Your task to perform on an android device: uninstall "ColorNote Notepad Notes" Image 0: 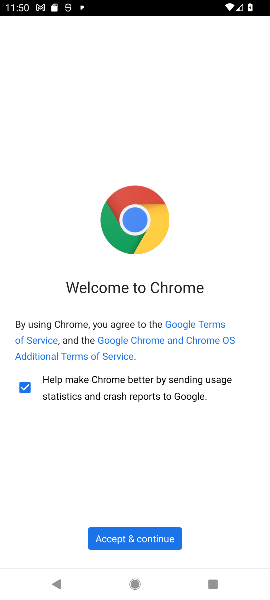
Step 0: press back button
Your task to perform on an android device: uninstall "ColorNote Notepad Notes" Image 1: 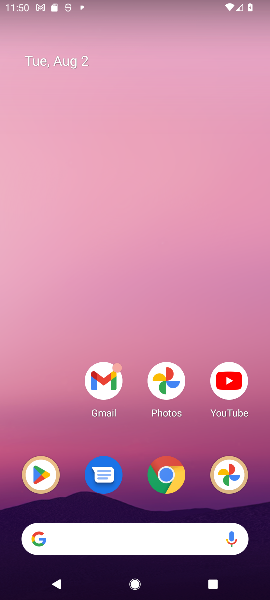
Step 1: click (41, 478)
Your task to perform on an android device: uninstall "ColorNote Notepad Notes" Image 2: 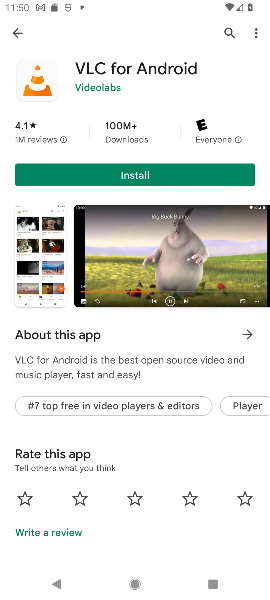
Step 2: click (230, 29)
Your task to perform on an android device: uninstall "ColorNote Notepad Notes" Image 3: 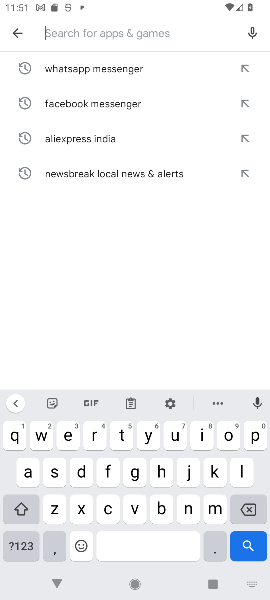
Step 3: type "ColorNote Notepad Notes"
Your task to perform on an android device: uninstall "ColorNote Notepad Notes" Image 4: 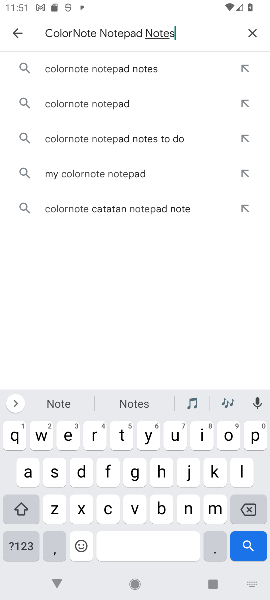
Step 4: type ""
Your task to perform on an android device: uninstall "ColorNote Notepad Notes" Image 5: 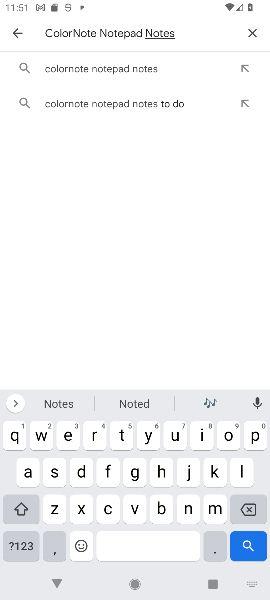
Step 5: click (161, 61)
Your task to perform on an android device: uninstall "ColorNote Notepad Notes" Image 6: 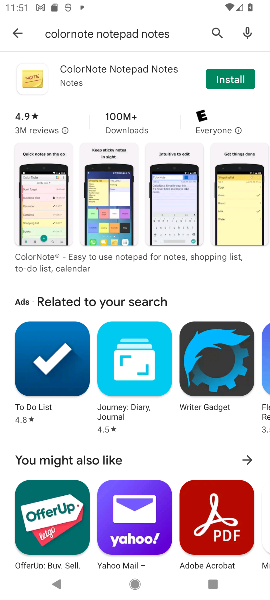
Step 6: task complete